Your task to perform on an android device: turn off translation in the chrome app Image 0: 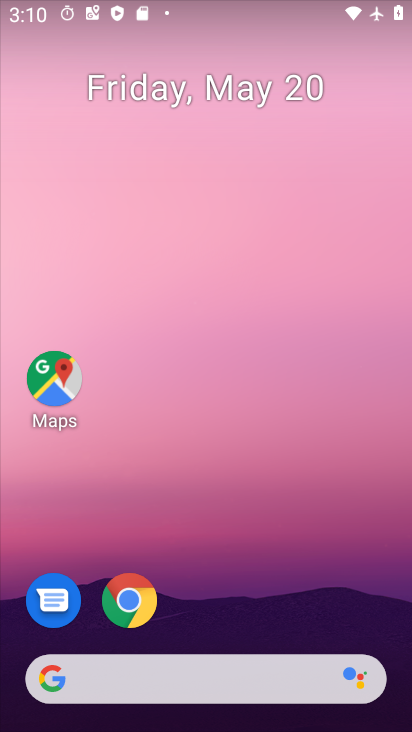
Step 0: drag from (241, 565) to (227, 47)
Your task to perform on an android device: turn off translation in the chrome app Image 1: 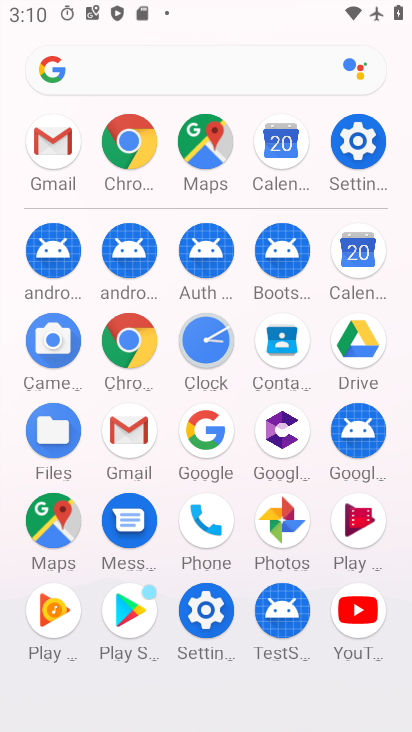
Step 1: drag from (7, 550) to (23, 228)
Your task to perform on an android device: turn off translation in the chrome app Image 2: 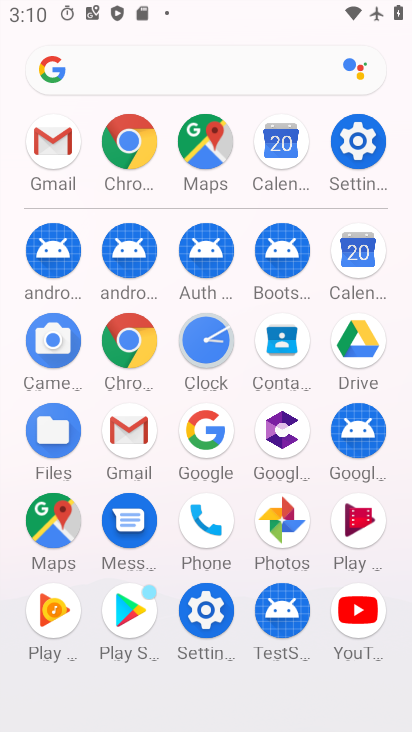
Step 2: click (132, 340)
Your task to perform on an android device: turn off translation in the chrome app Image 3: 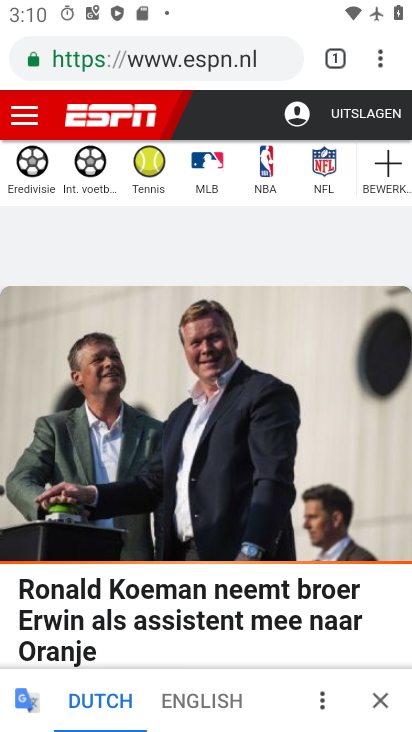
Step 3: drag from (373, 57) to (205, 615)
Your task to perform on an android device: turn off translation in the chrome app Image 4: 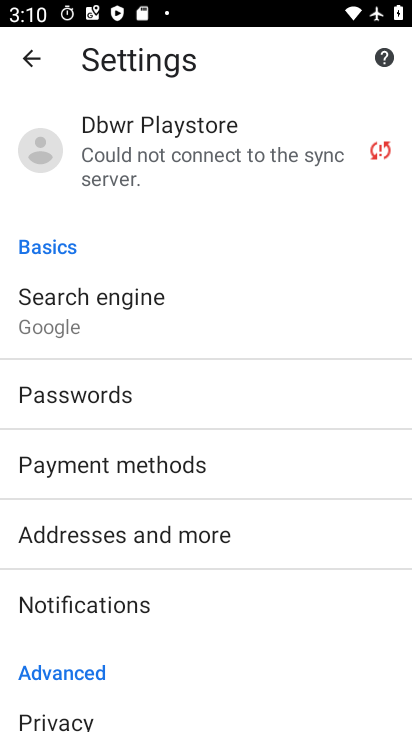
Step 4: drag from (235, 626) to (232, 217)
Your task to perform on an android device: turn off translation in the chrome app Image 5: 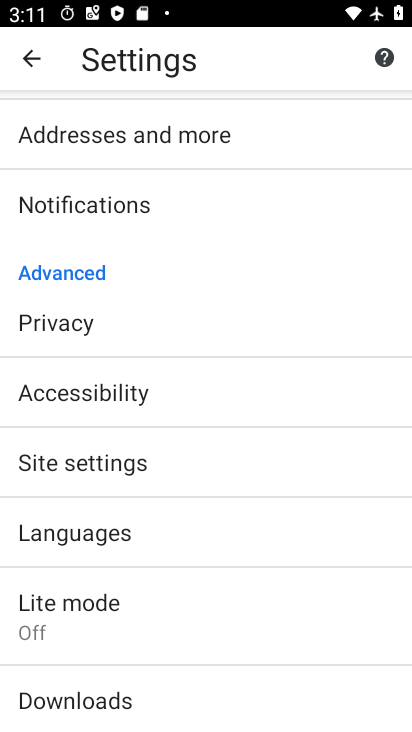
Step 5: click (129, 536)
Your task to perform on an android device: turn off translation in the chrome app Image 6: 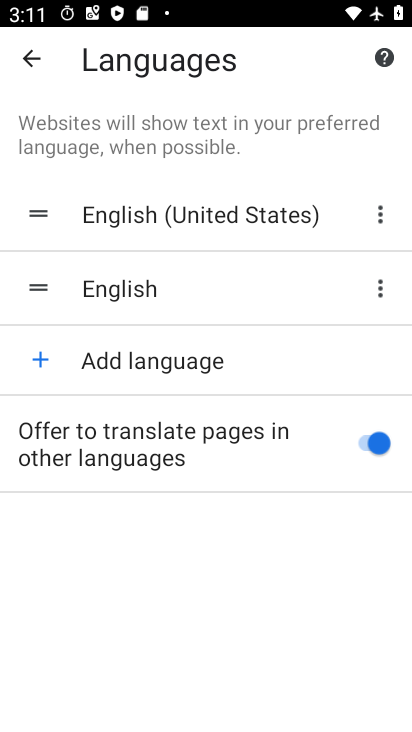
Step 6: click (355, 445)
Your task to perform on an android device: turn off translation in the chrome app Image 7: 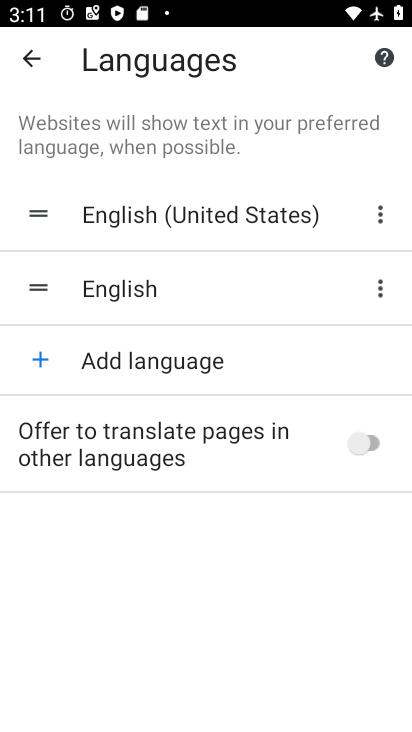
Step 7: task complete